Your task to perform on an android device: Go to settings Image 0: 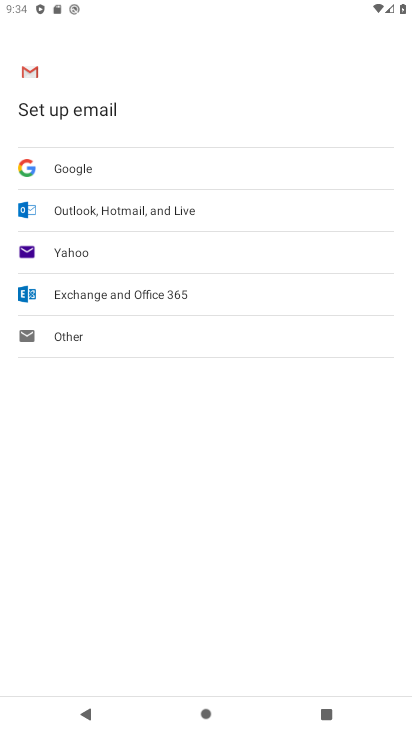
Step 0: press back button
Your task to perform on an android device: Go to settings Image 1: 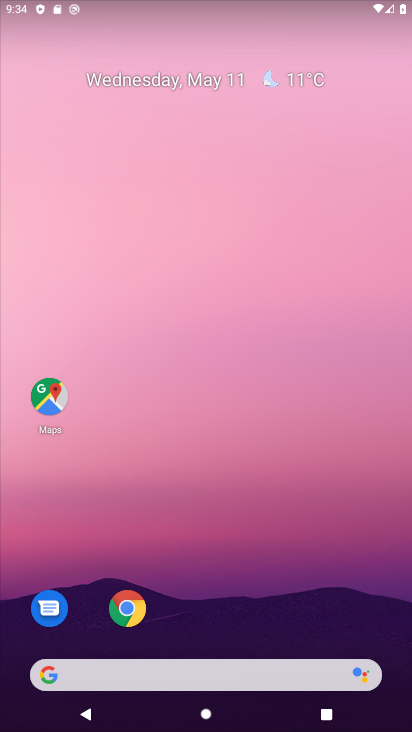
Step 1: drag from (149, 651) to (226, 150)
Your task to perform on an android device: Go to settings Image 2: 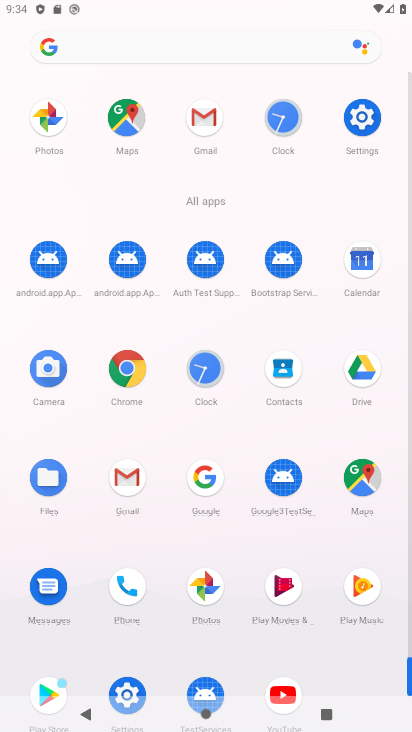
Step 2: drag from (127, 645) to (159, 519)
Your task to perform on an android device: Go to settings Image 3: 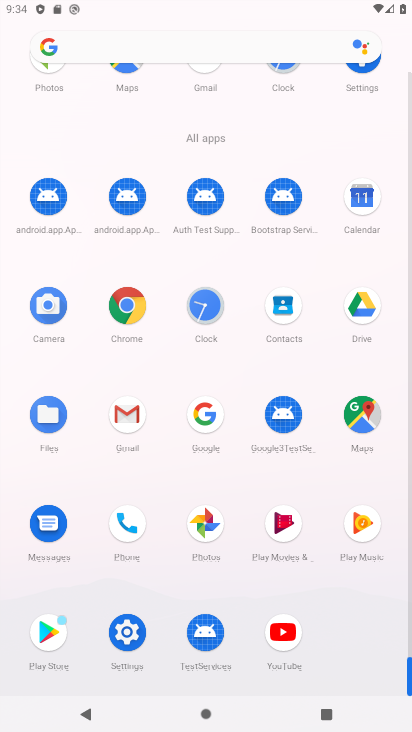
Step 3: click (125, 634)
Your task to perform on an android device: Go to settings Image 4: 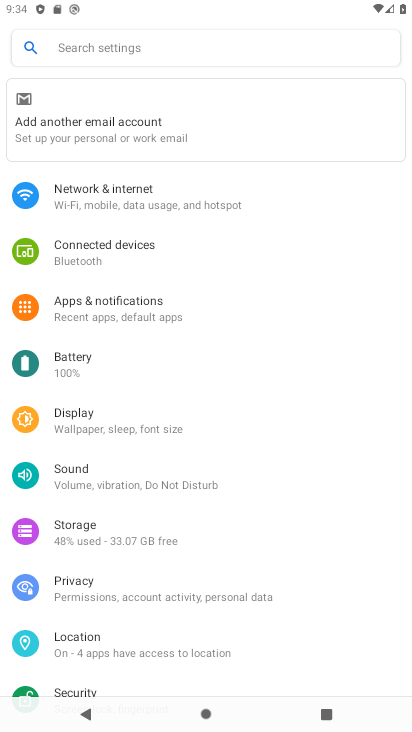
Step 4: task complete